Your task to perform on an android device: turn off translation in the chrome app Image 0: 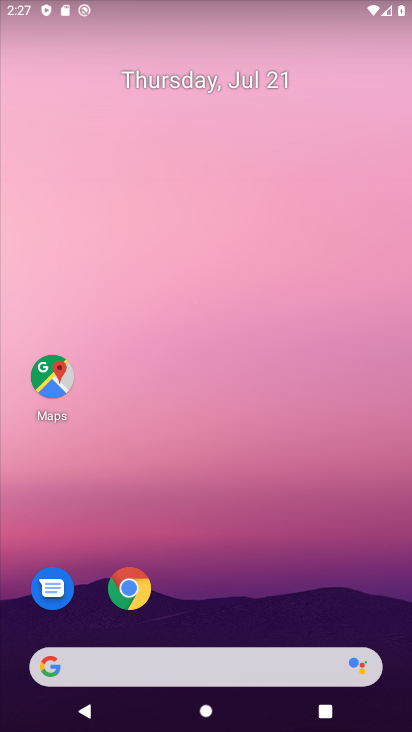
Step 0: drag from (134, 715) to (183, 358)
Your task to perform on an android device: turn off translation in the chrome app Image 1: 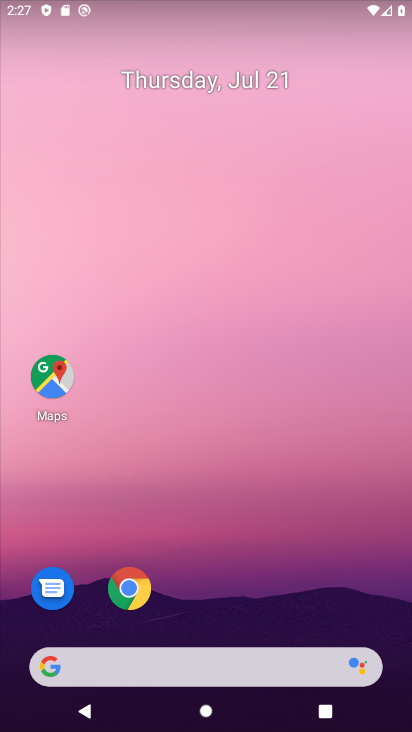
Step 1: drag from (216, 593) to (211, 242)
Your task to perform on an android device: turn off translation in the chrome app Image 2: 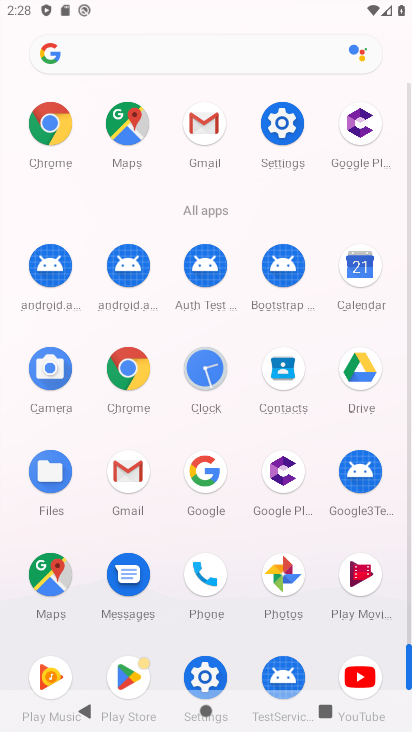
Step 2: click (133, 384)
Your task to perform on an android device: turn off translation in the chrome app Image 3: 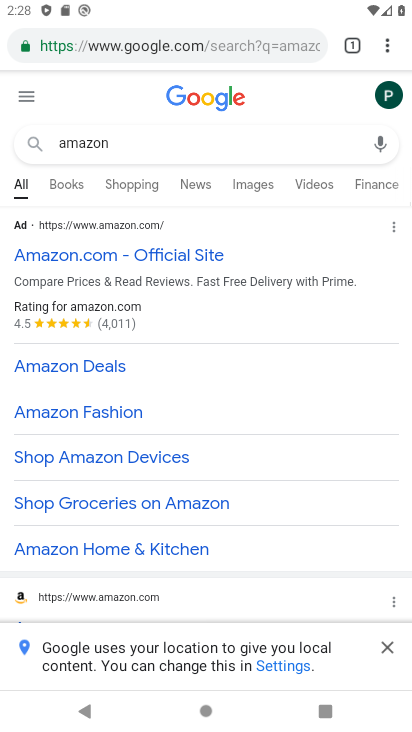
Step 3: click (388, 43)
Your task to perform on an android device: turn off translation in the chrome app Image 4: 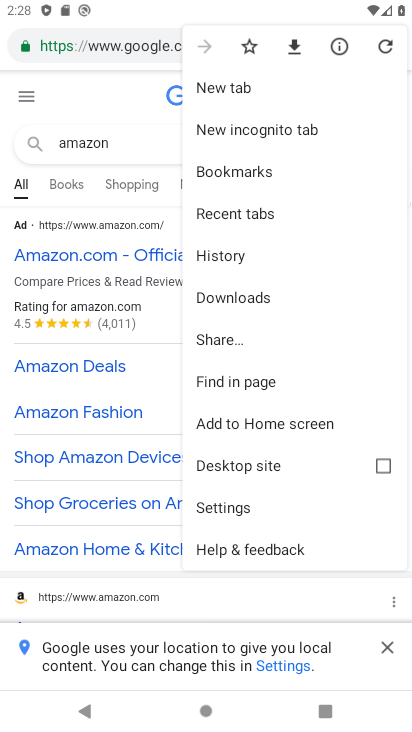
Step 4: task complete